Your task to perform on an android device: refresh tabs in the chrome app Image 0: 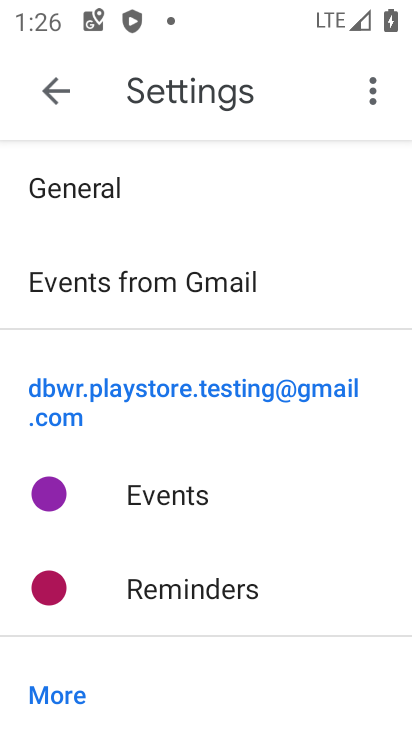
Step 0: press home button
Your task to perform on an android device: refresh tabs in the chrome app Image 1: 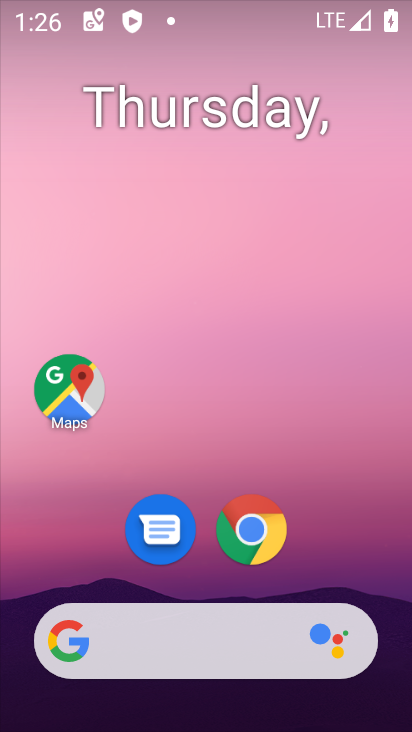
Step 1: drag from (371, 578) to (350, 190)
Your task to perform on an android device: refresh tabs in the chrome app Image 2: 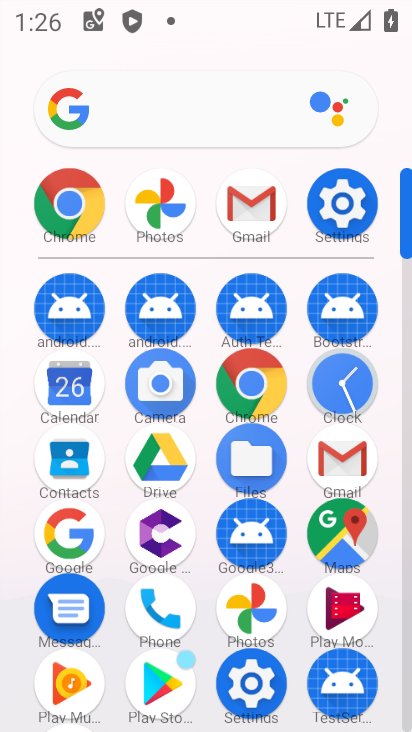
Step 2: click (334, 528)
Your task to perform on an android device: refresh tabs in the chrome app Image 3: 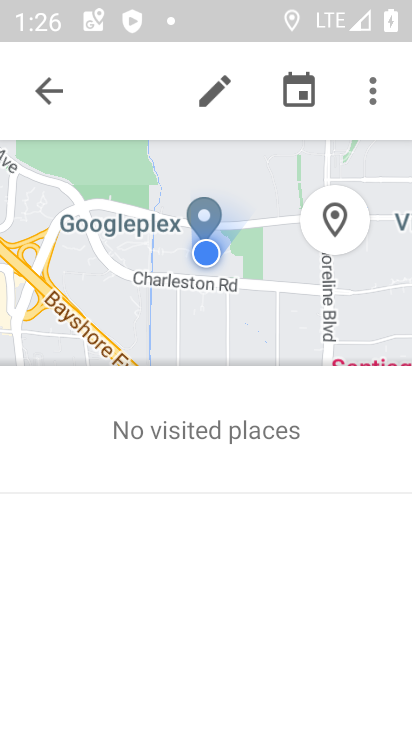
Step 3: press home button
Your task to perform on an android device: refresh tabs in the chrome app Image 4: 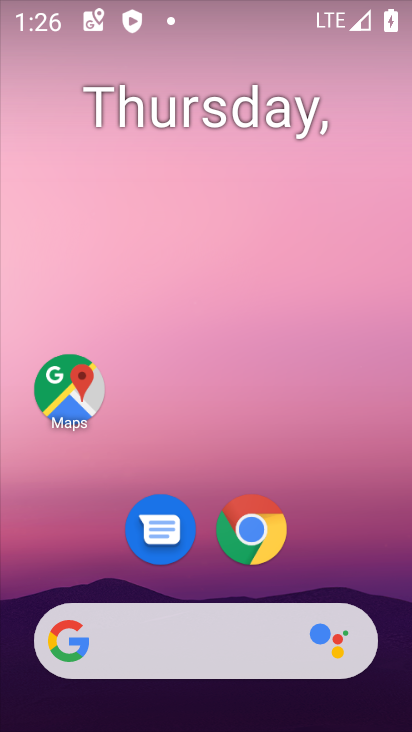
Step 4: click (255, 529)
Your task to perform on an android device: refresh tabs in the chrome app Image 5: 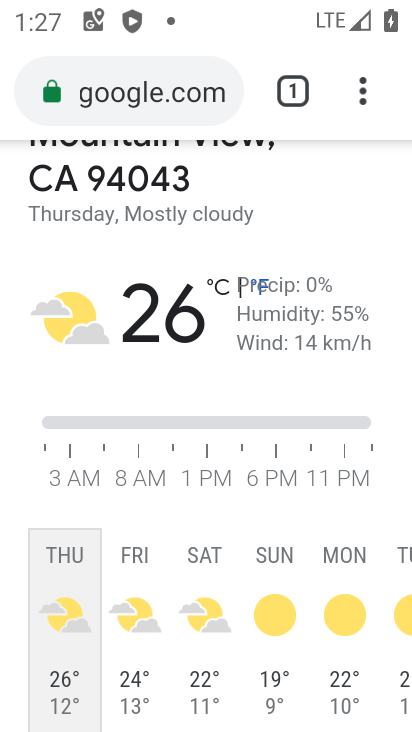
Step 5: task complete